Your task to perform on an android device: uninstall "Adobe Acrobat Reader" Image 0: 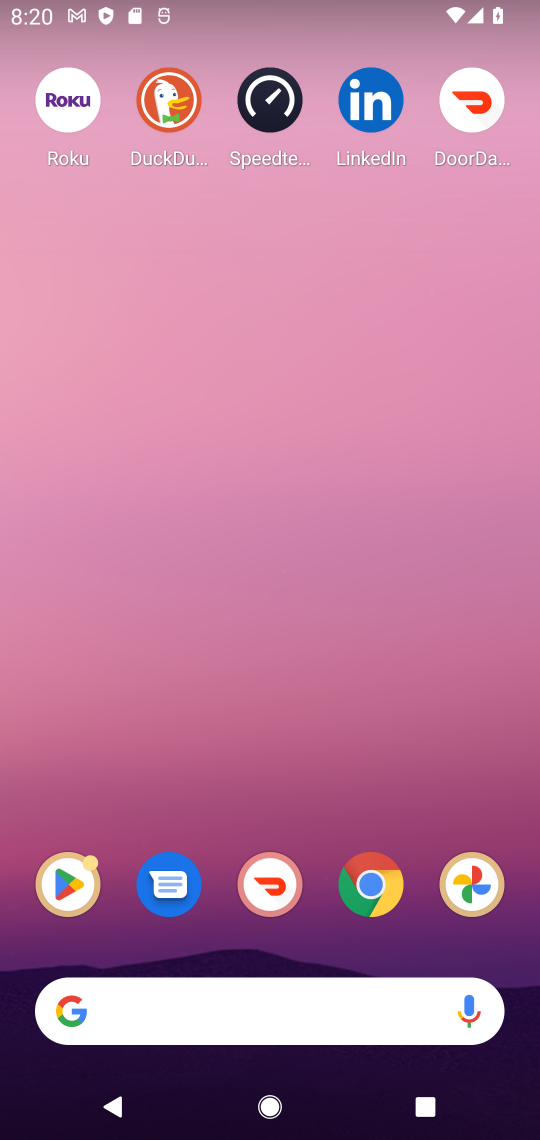
Step 0: click (68, 872)
Your task to perform on an android device: uninstall "Adobe Acrobat Reader" Image 1: 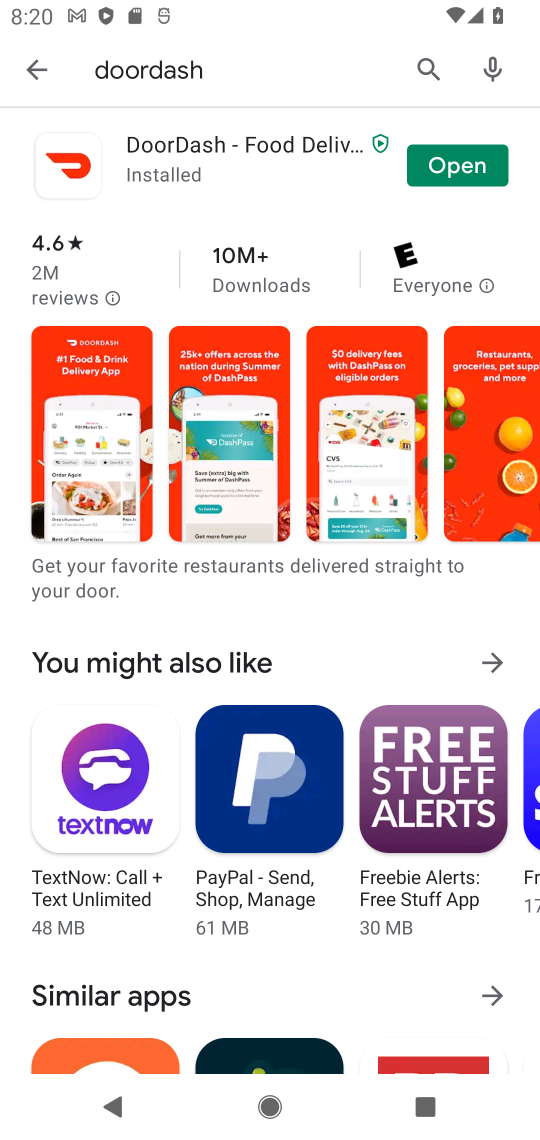
Step 1: click (418, 66)
Your task to perform on an android device: uninstall "Adobe Acrobat Reader" Image 2: 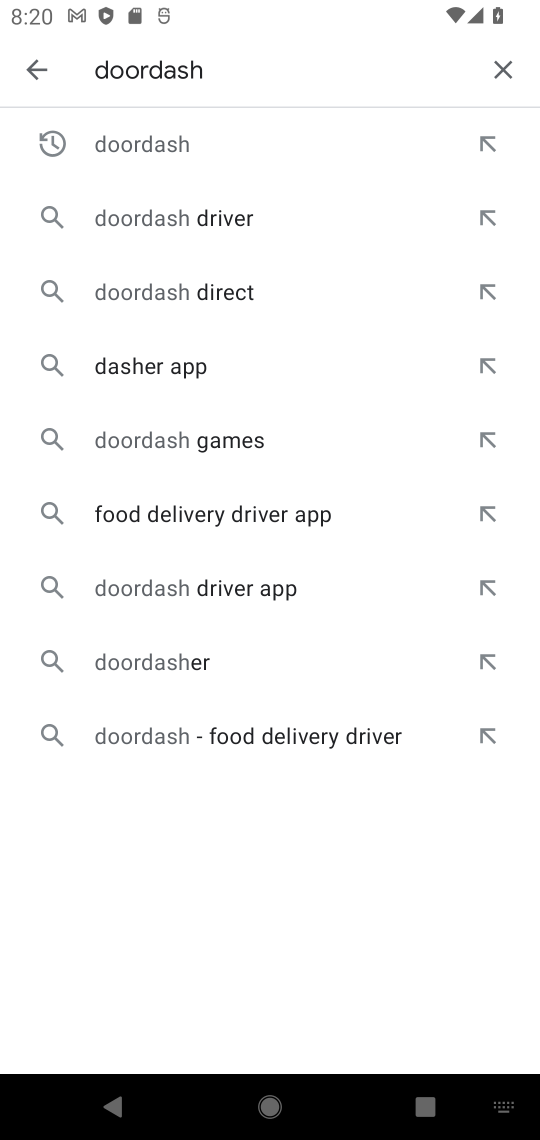
Step 2: click (510, 69)
Your task to perform on an android device: uninstall "Adobe Acrobat Reader" Image 3: 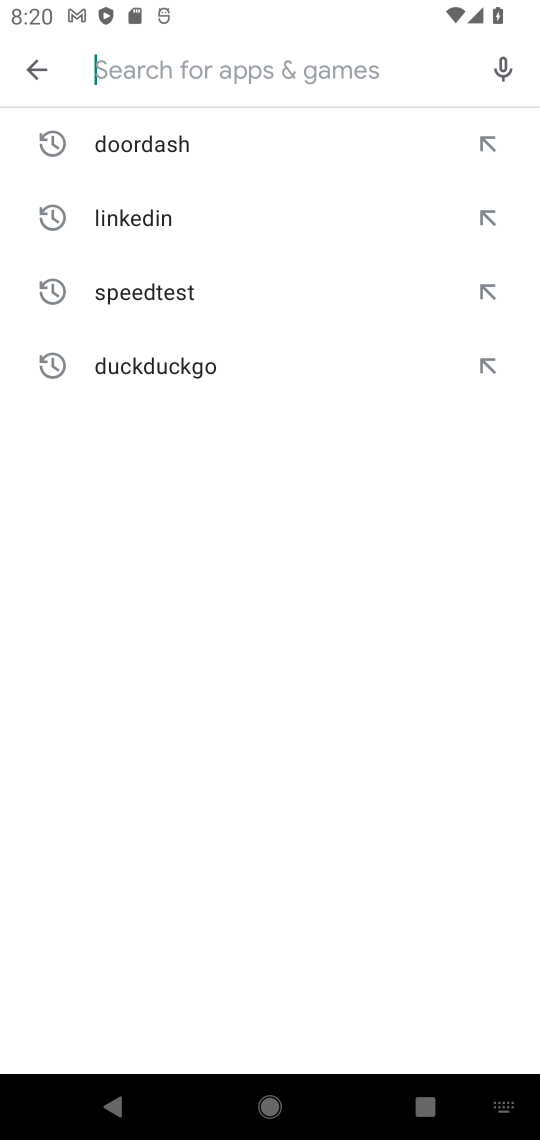
Step 3: type "adobe acrobat"
Your task to perform on an android device: uninstall "Adobe Acrobat Reader" Image 4: 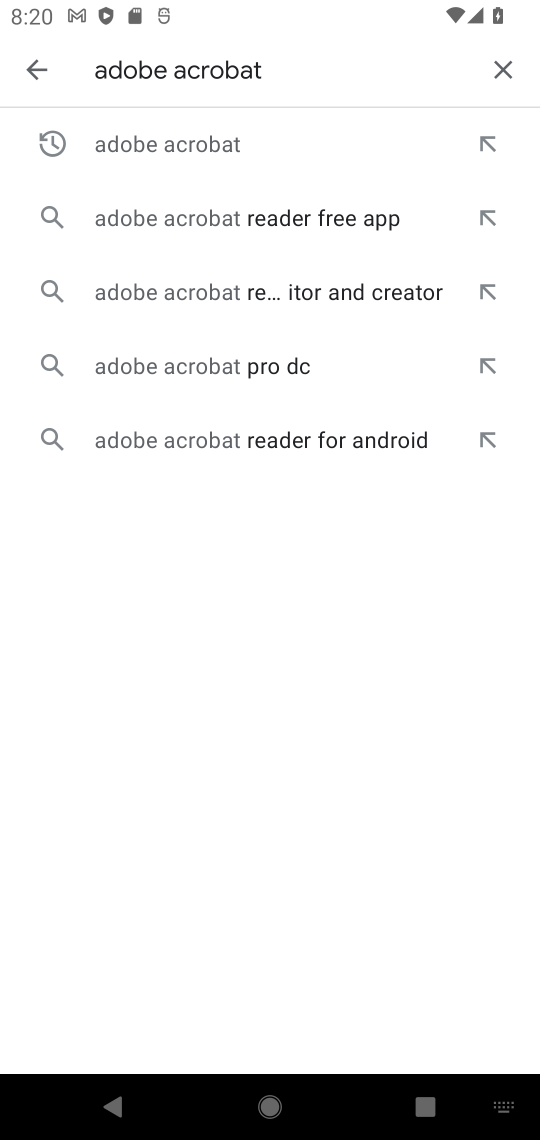
Step 4: click (175, 149)
Your task to perform on an android device: uninstall "Adobe Acrobat Reader" Image 5: 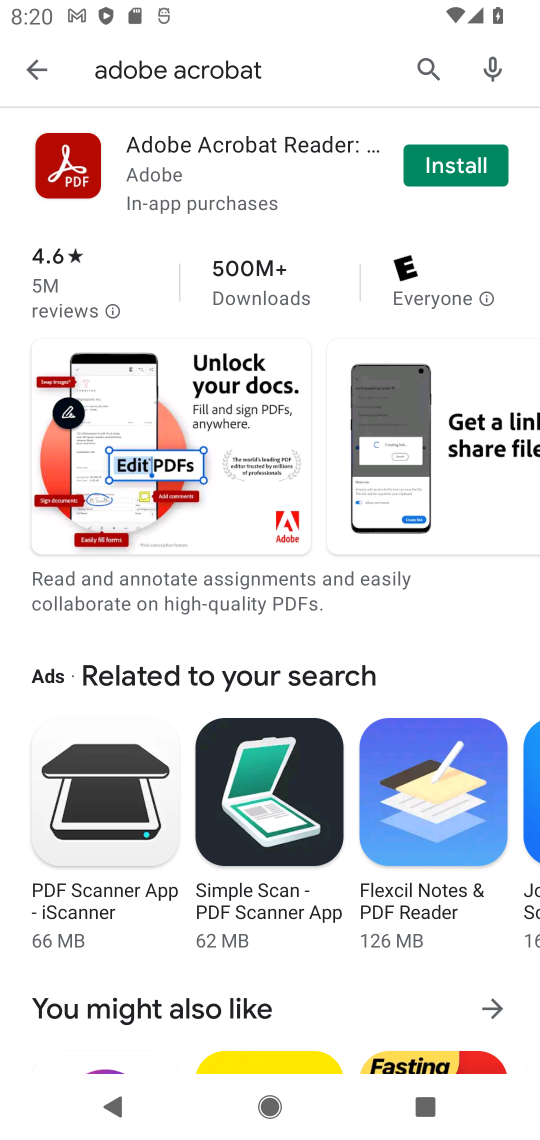
Step 5: task complete